Your task to perform on an android device: read, delete, or share a saved page in the chrome app Image 0: 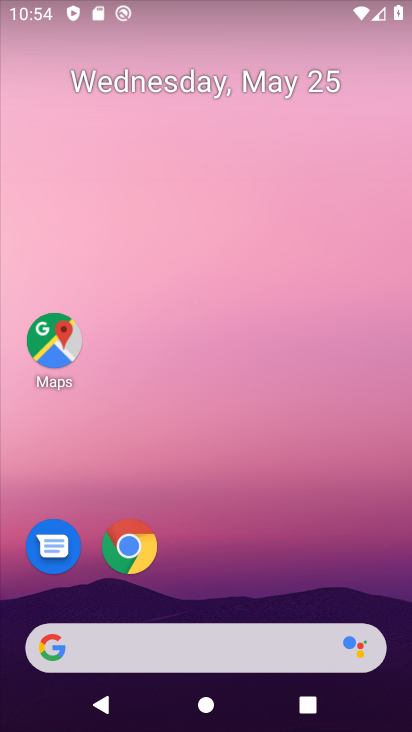
Step 0: drag from (317, 557) to (313, 202)
Your task to perform on an android device: read, delete, or share a saved page in the chrome app Image 1: 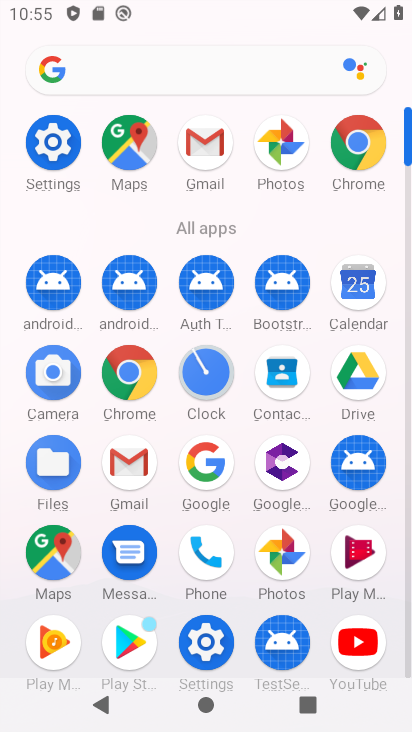
Step 1: click (144, 381)
Your task to perform on an android device: read, delete, or share a saved page in the chrome app Image 2: 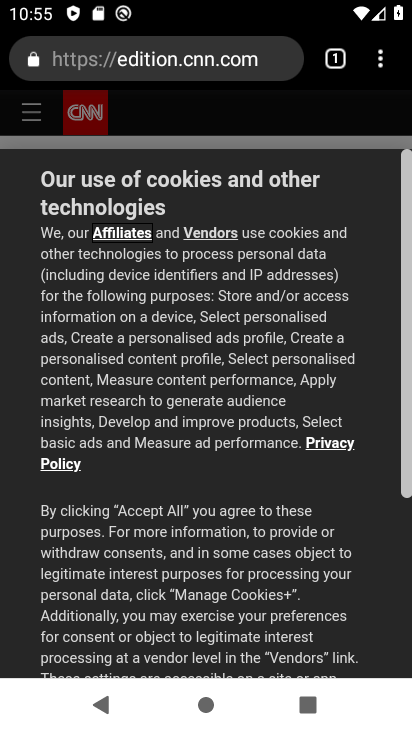
Step 2: task complete